Your task to perform on an android device: toggle wifi Image 0: 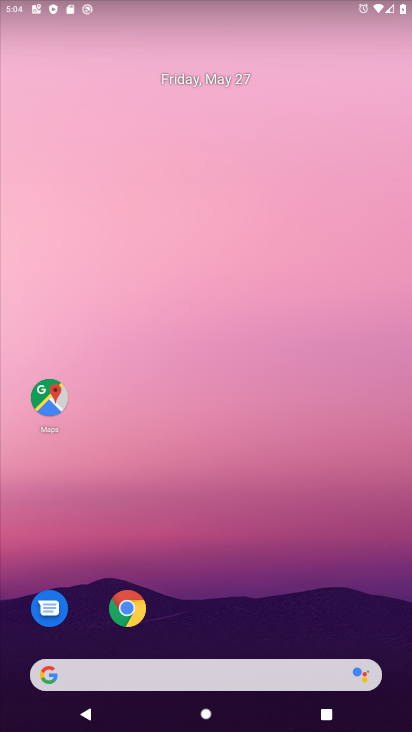
Step 0: drag from (246, 662) to (266, 458)
Your task to perform on an android device: toggle wifi Image 1: 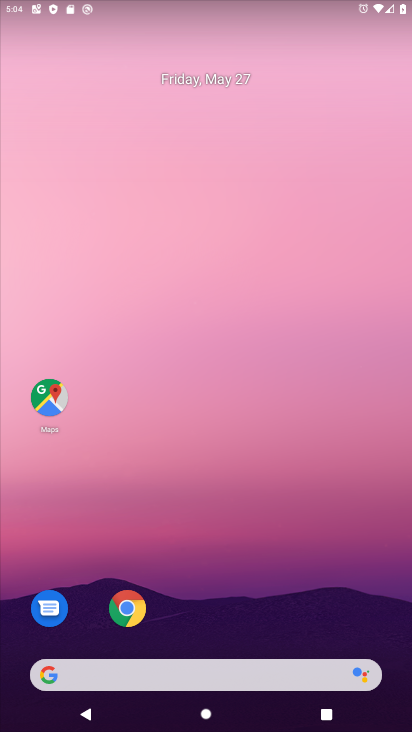
Step 1: drag from (229, 669) to (249, 129)
Your task to perform on an android device: toggle wifi Image 2: 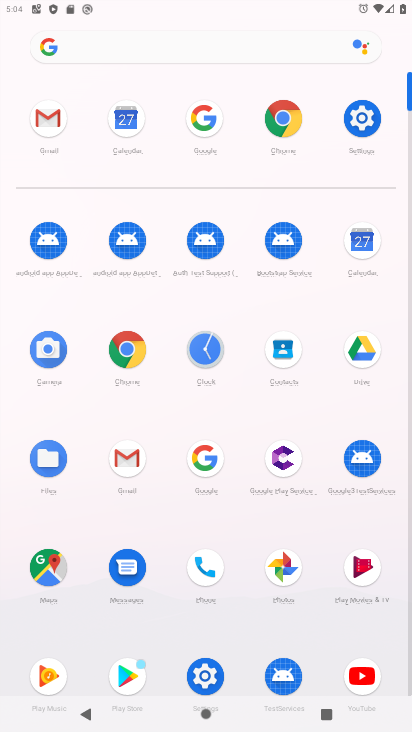
Step 2: click (350, 123)
Your task to perform on an android device: toggle wifi Image 3: 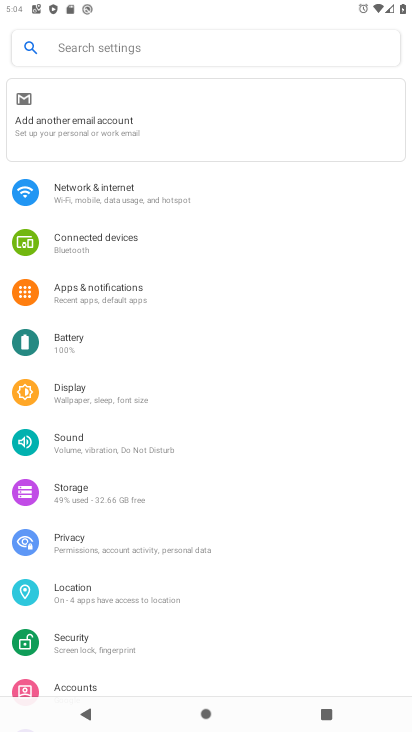
Step 3: click (143, 195)
Your task to perform on an android device: toggle wifi Image 4: 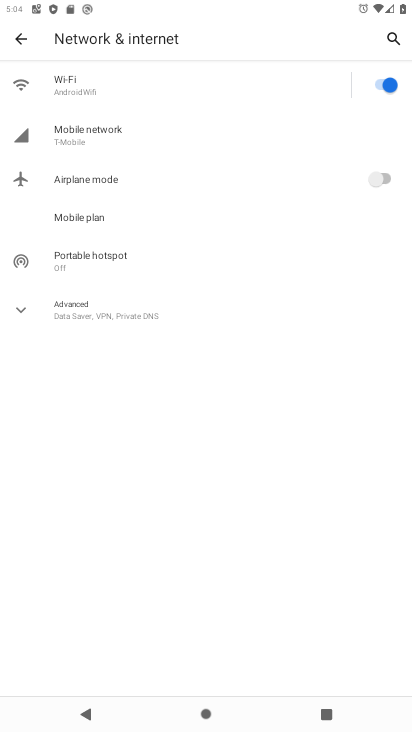
Step 4: click (384, 87)
Your task to perform on an android device: toggle wifi Image 5: 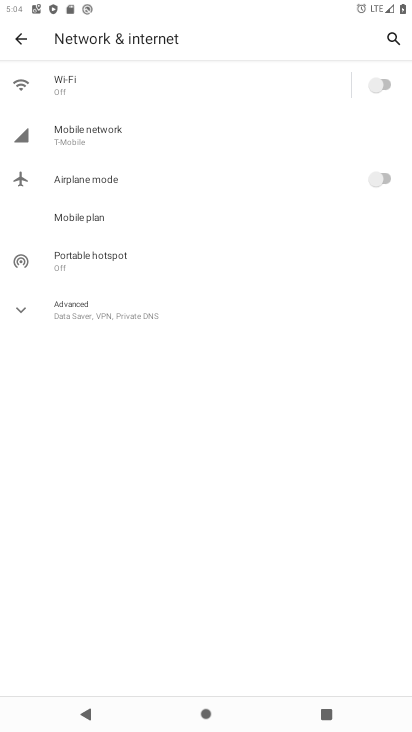
Step 5: task complete